Your task to perform on an android device: Open battery settings Image 0: 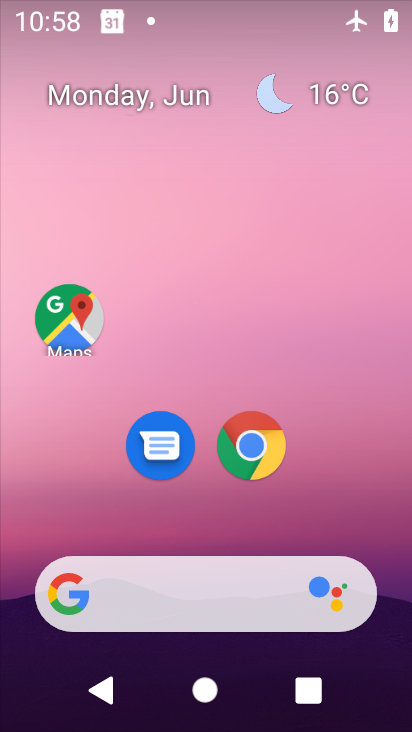
Step 0: press home button
Your task to perform on an android device: Open battery settings Image 1: 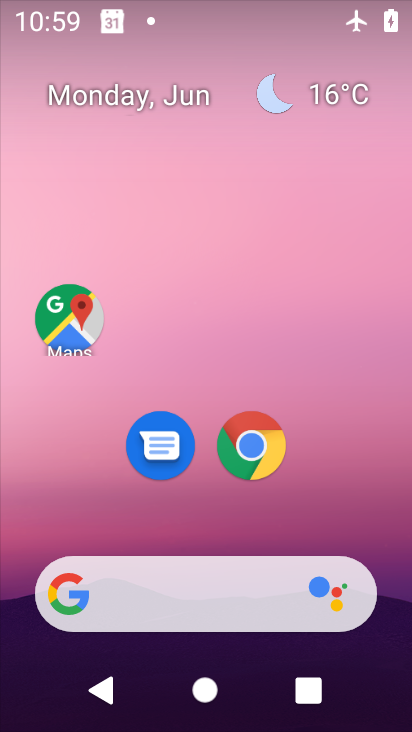
Step 1: drag from (202, 498) to (202, 9)
Your task to perform on an android device: Open battery settings Image 2: 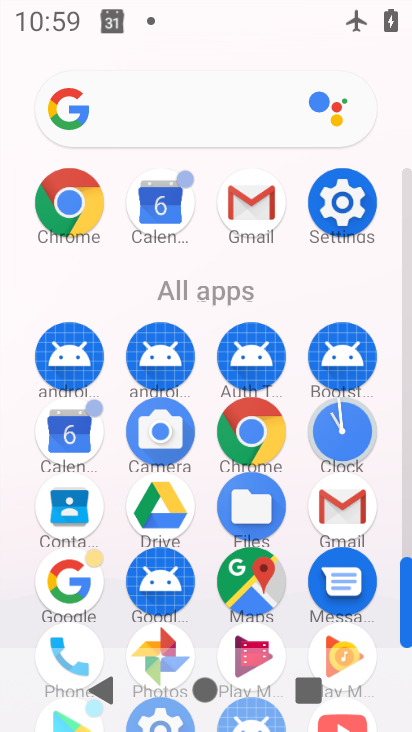
Step 2: click (337, 206)
Your task to perform on an android device: Open battery settings Image 3: 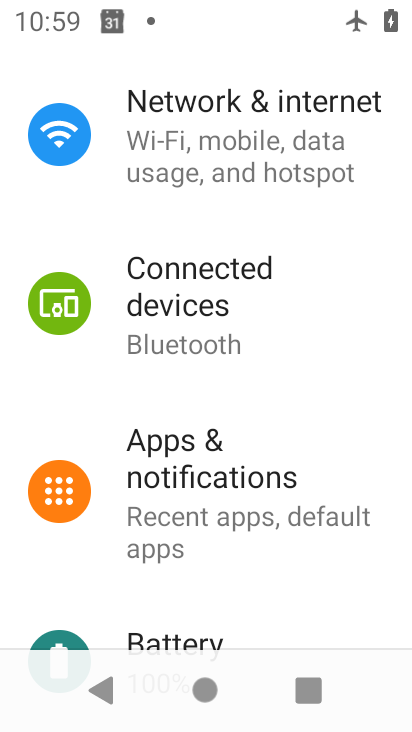
Step 3: click (175, 646)
Your task to perform on an android device: Open battery settings Image 4: 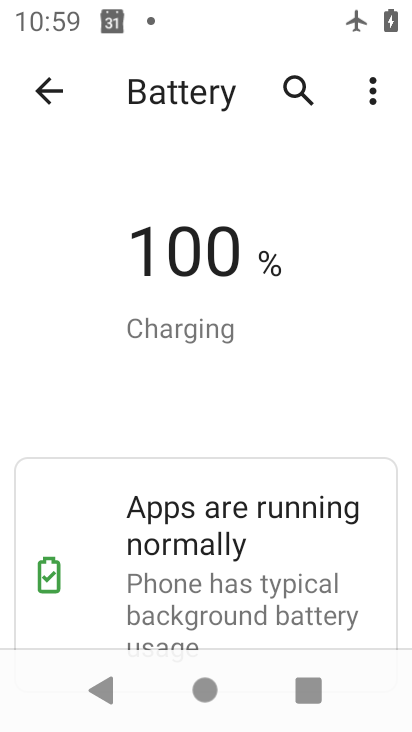
Step 4: task complete